Your task to perform on an android device: turn off airplane mode Image 0: 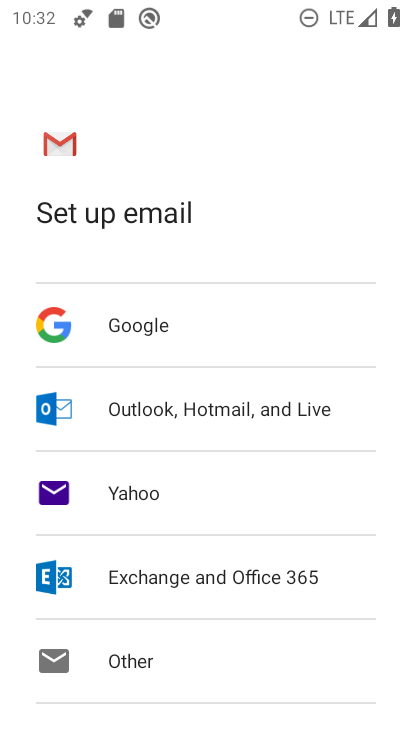
Step 0: press home button
Your task to perform on an android device: turn off airplane mode Image 1: 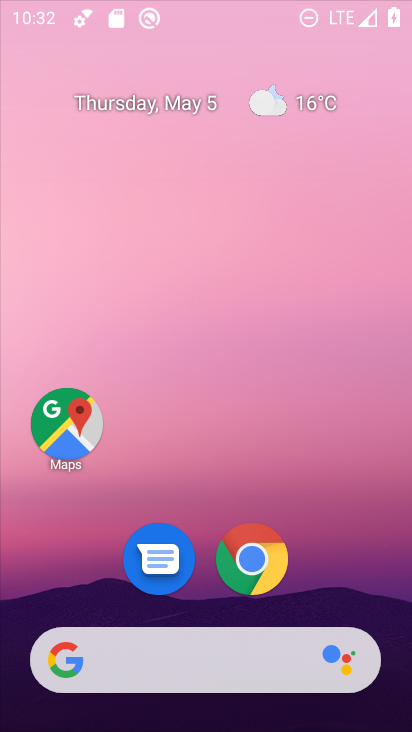
Step 1: task complete